Your task to perform on an android device: Go to Amazon Image 0: 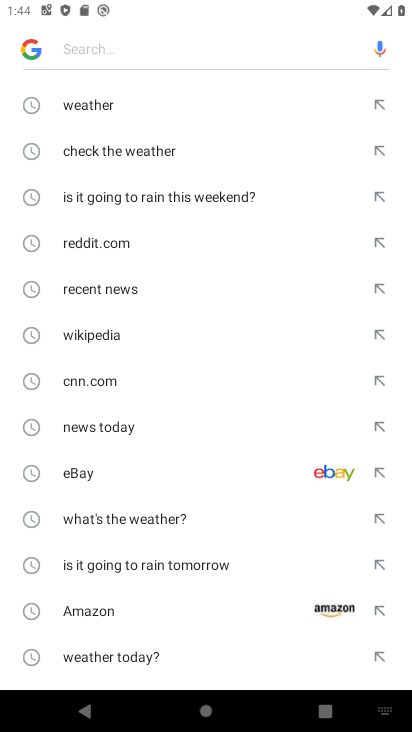
Step 0: press back button
Your task to perform on an android device: Go to Amazon Image 1: 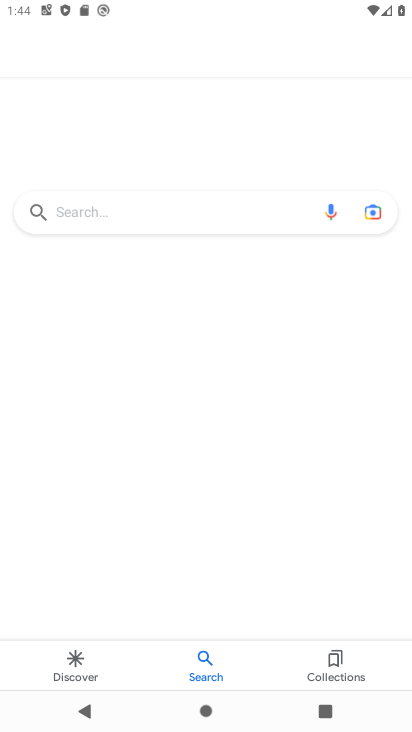
Step 1: press back button
Your task to perform on an android device: Go to Amazon Image 2: 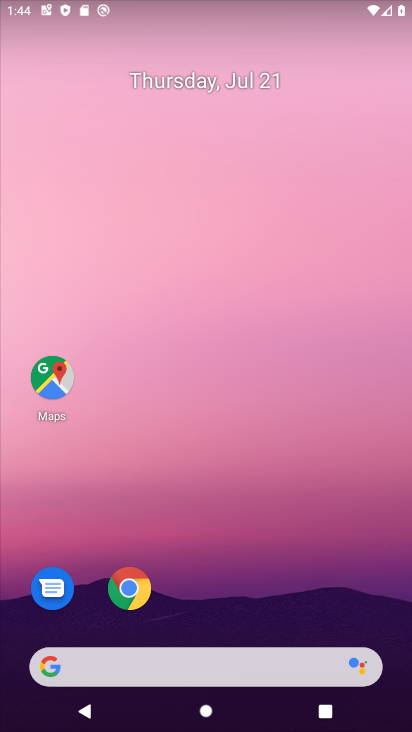
Step 2: click (116, 583)
Your task to perform on an android device: Go to Amazon Image 3: 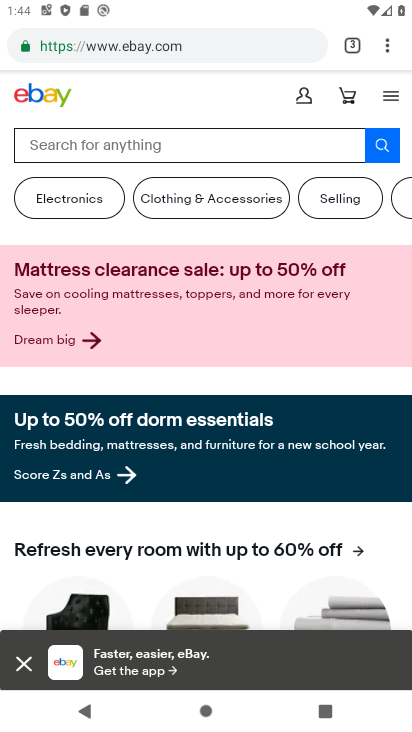
Step 3: click (348, 43)
Your task to perform on an android device: Go to Amazon Image 4: 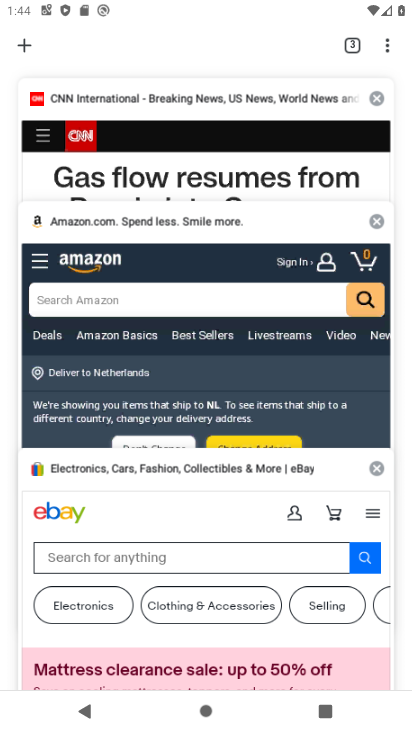
Step 4: click (21, 50)
Your task to perform on an android device: Go to Amazon Image 5: 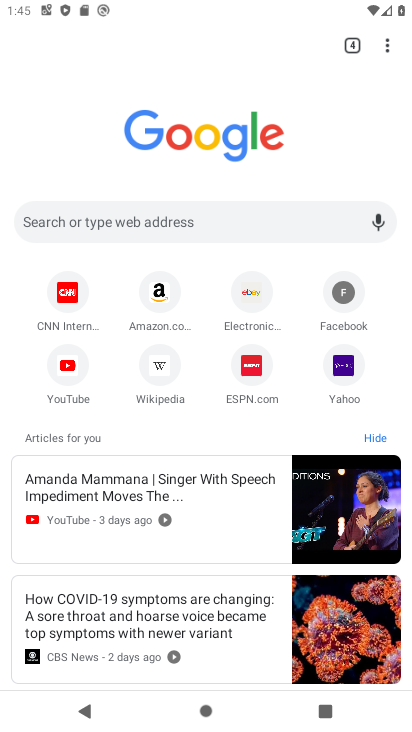
Step 5: click (150, 287)
Your task to perform on an android device: Go to Amazon Image 6: 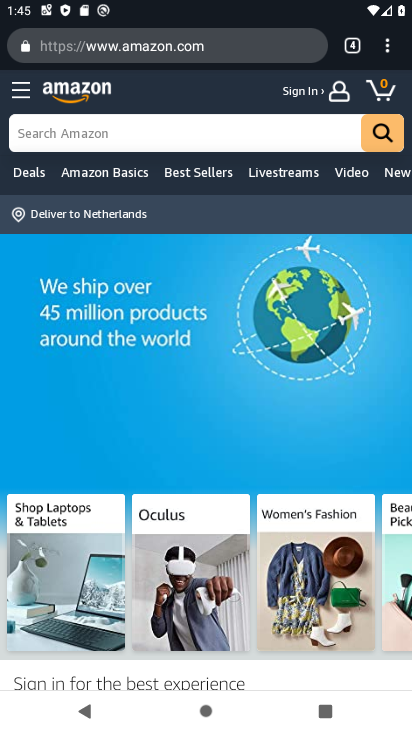
Step 6: task complete